Your task to perform on an android device: toggle data saver in the chrome app Image 0: 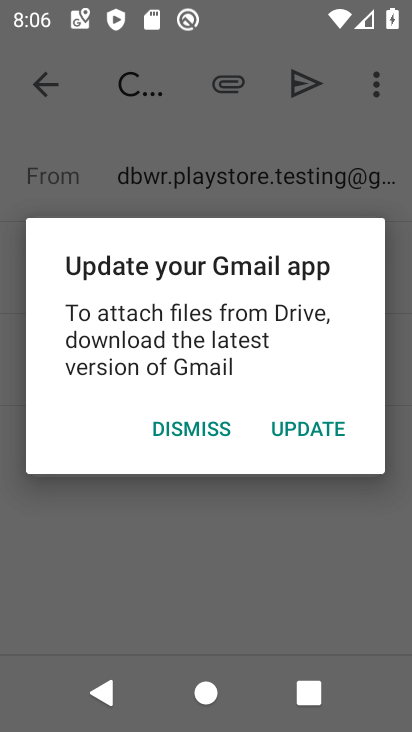
Step 0: press home button
Your task to perform on an android device: toggle data saver in the chrome app Image 1: 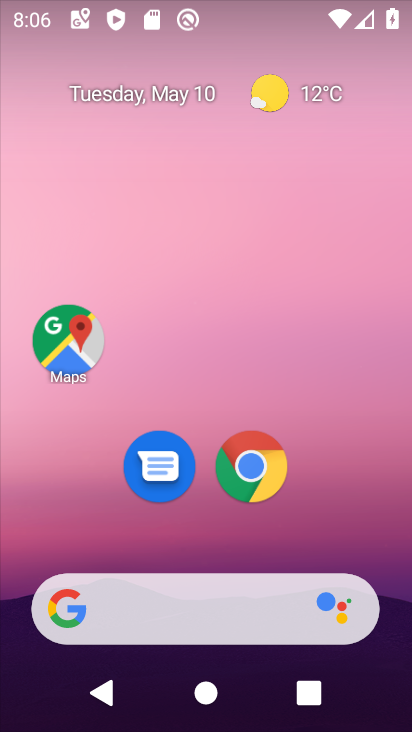
Step 1: click (267, 450)
Your task to perform on an android device: toggle data saver in the chrome app Image 2: 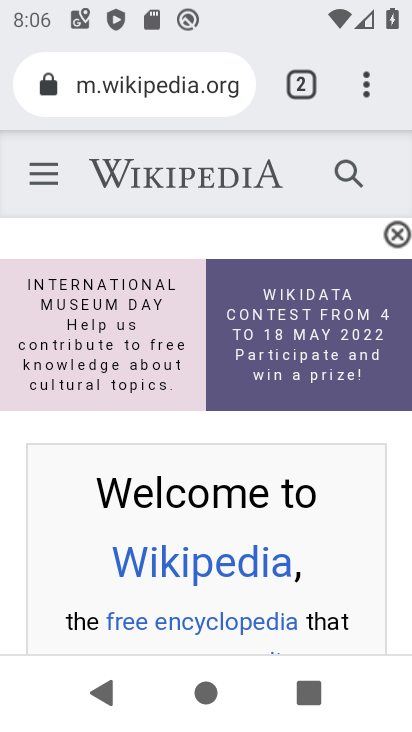
Step 2: click (365, 86)
Your task to perform on an android device: toggle data saver in the chrome app Image 3: 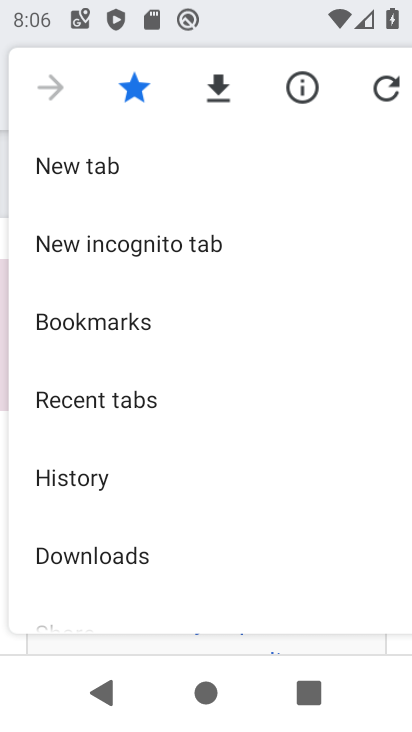
Step 3: drag from (132, 501) to (176, 165)
Your task to perform on an android device: toggle data saver in the chrome app Image 4: 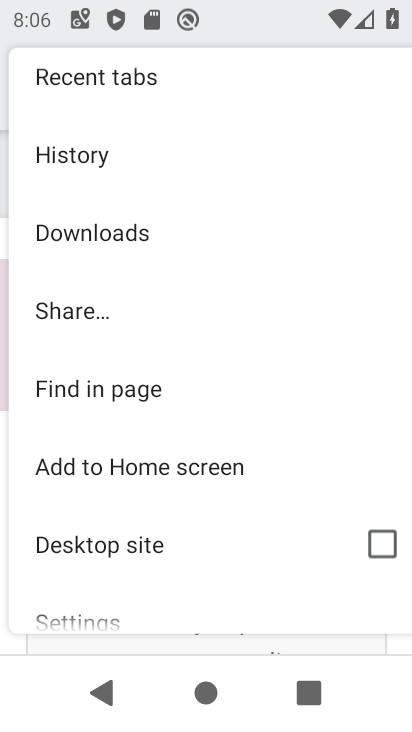
Step 4: drag from (73, 544) to (120, 283)
Your task to perform on an android device: toggle data saver in the chrome app Image 5: 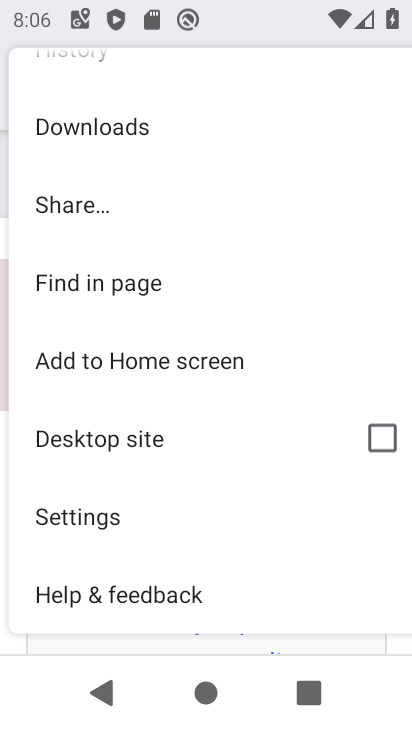
Step 5: click (84, 511)
Your task to perform on an android device: toggle data saver in the chrome app Image 6: 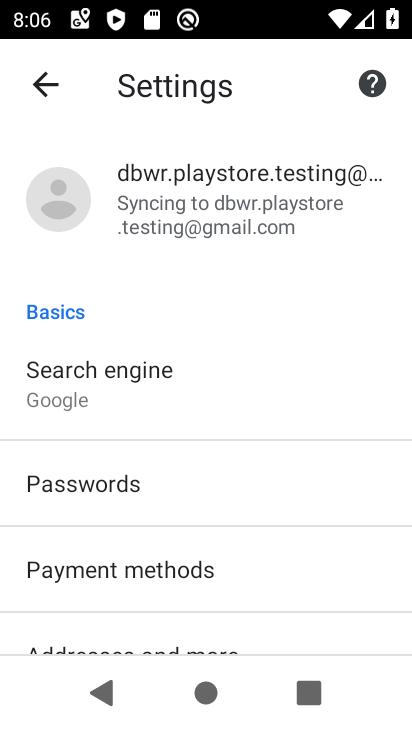
Step 6: drag from (160, 478) to (216, 128)
Your task to perform on an android device: toggle data saver in the chrome app Image 7: 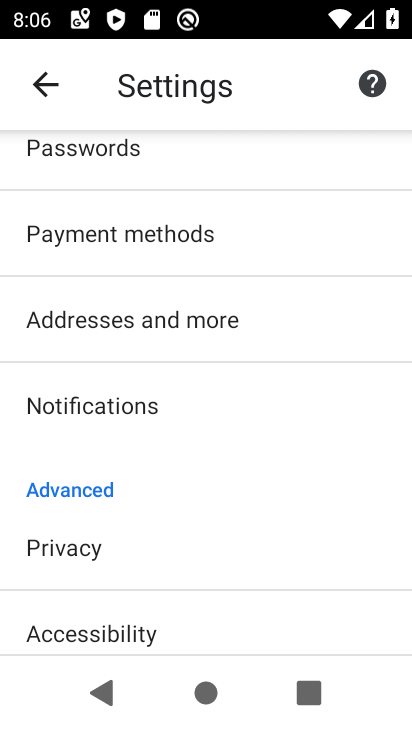
Step 7: drag from (154, 536) to (224, 153)
Your task to perform on an android device: toggle data saver in the chrome app Image 8: 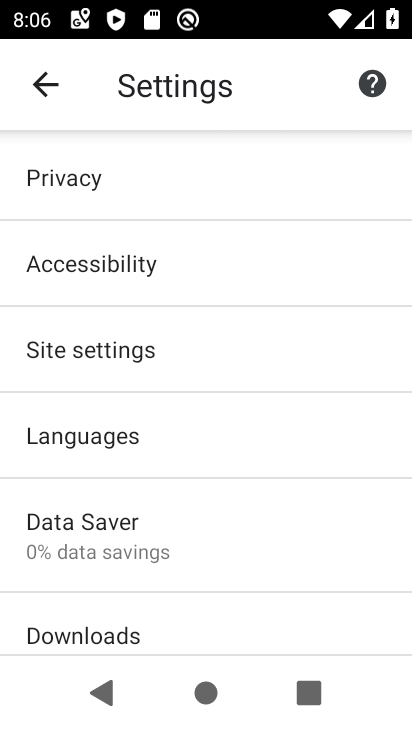
Step 8: click (112, 553)
Your task to perform on an android device: toggle data saver in the chrome app Image 9: 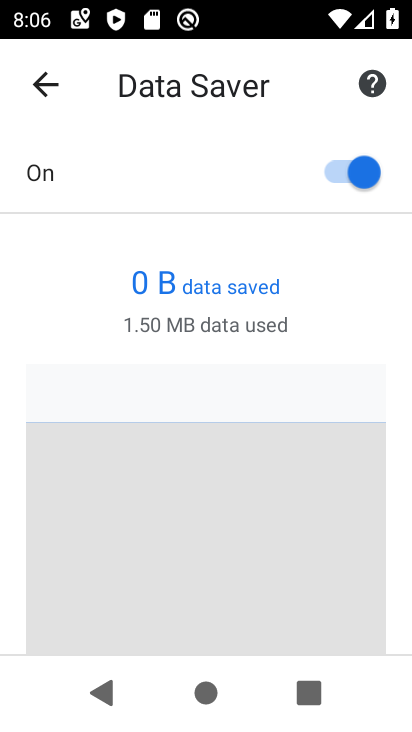
Step 9: click (310, 165)
Your task to perform on an android device: toggle data saver in the chrome app Image 10: 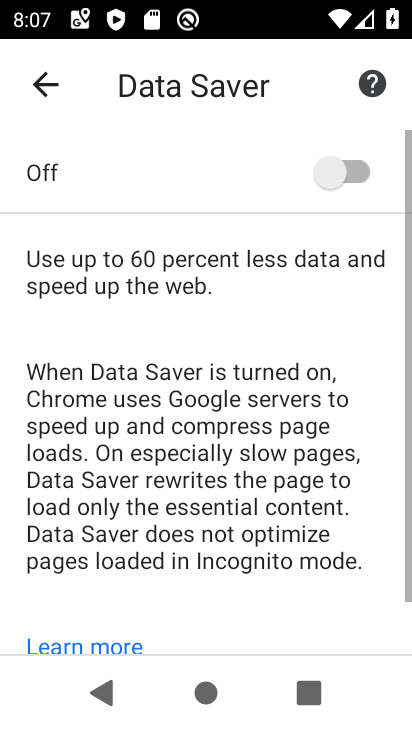
Step 10: task complete